Your task to perform on an android device: Open Maps and search for coffee Image 0: 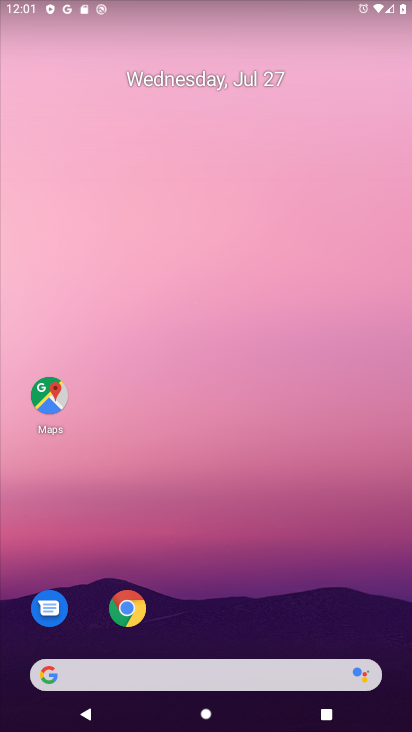
Step 0: click (49, 397)
Your task to perform on an android device: Open Maps and search for coffee Image 1: 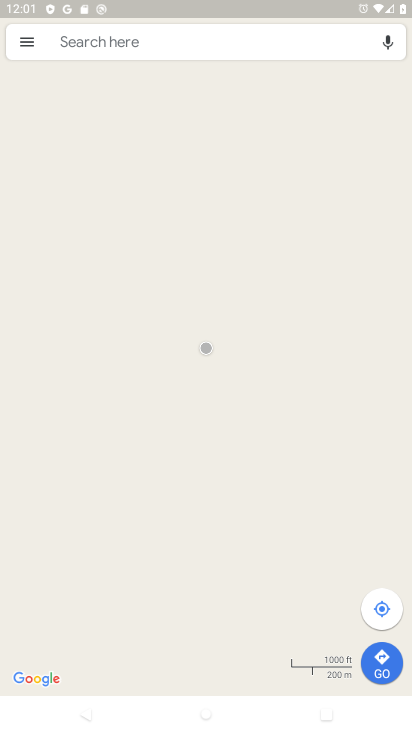
Step 1: click (181, 43)
Your task to perform on an android device: Open Maps and search for coffee Image 2: 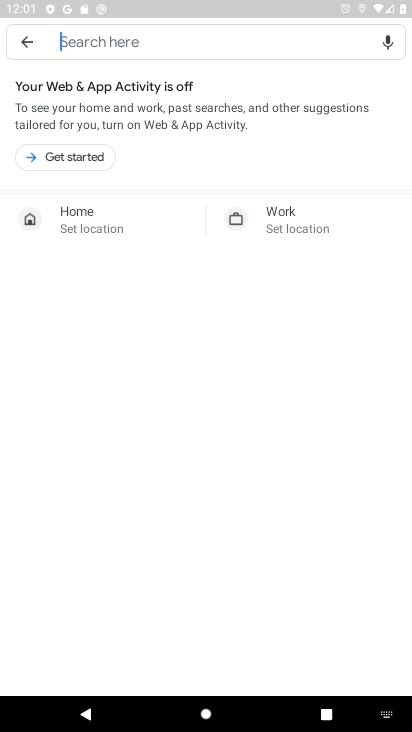
Step 2: type "coffee"
Your task to perform on an android device: Open Maps and search for coffee Image 3: 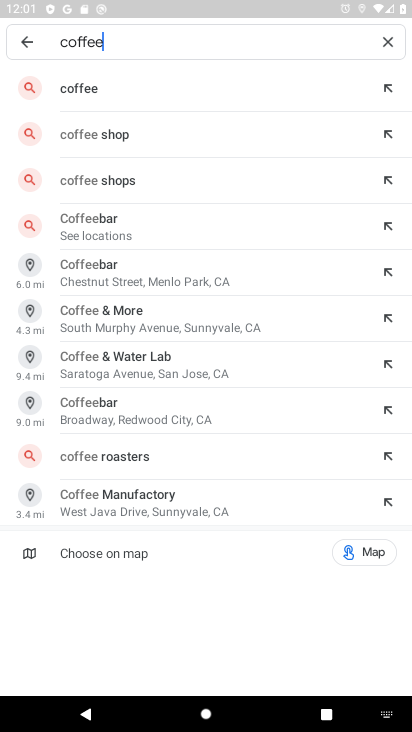
Step 3: click (99, 90)
Your task to perform on an android device: Open Maps and search for coffee Image 4: 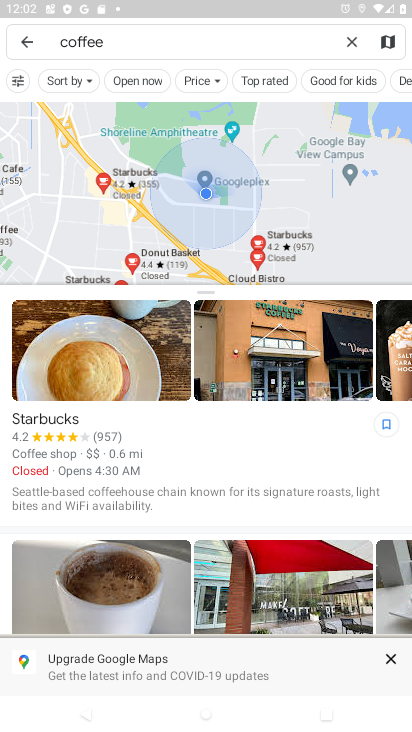
Step 4: task complete